Your task to perform on an android device: turn off location Image 0: 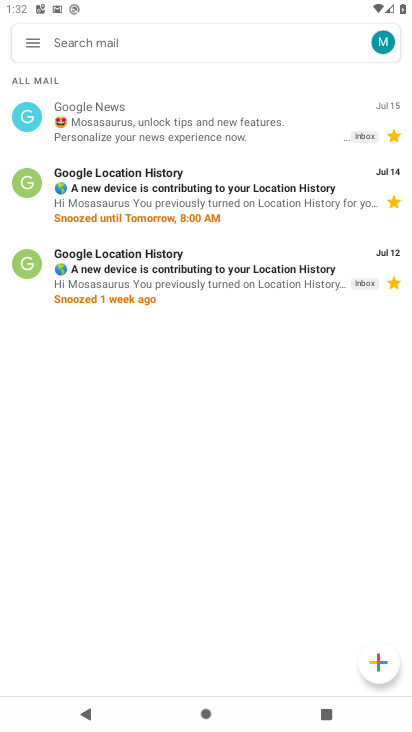
Step 0: drag from (230, 600) to (254, 56)
Your task to perform on an android device: turn off location Image 1: 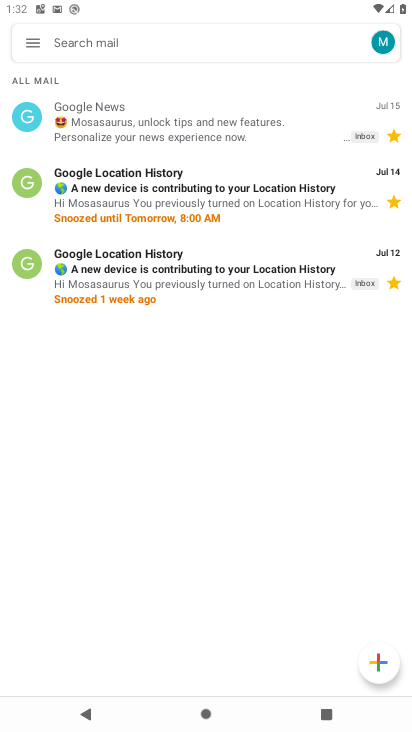
Step 1: press home button
Your task to perform on an android device: turn off location Image 2: 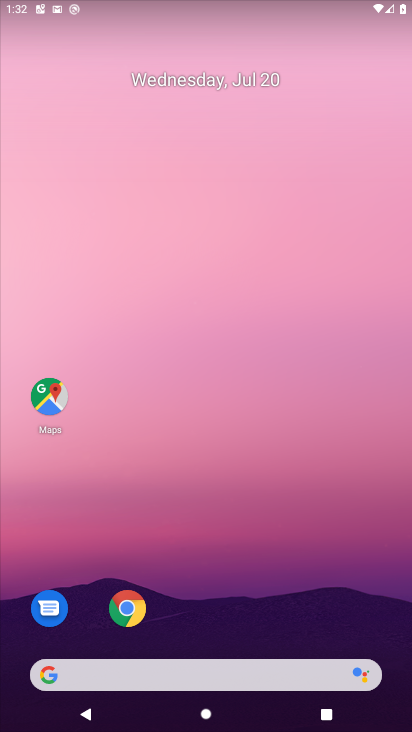
Step 2: drag from (252, 658) to (252, 122)
Your task to perform on an android device: turn off location Image 3: 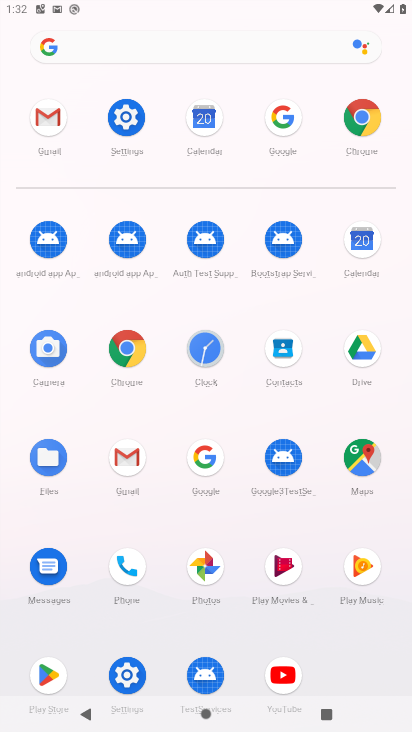
Step 3: click (131, 114)
Your task to perform on an android device: turn off location Image 4: 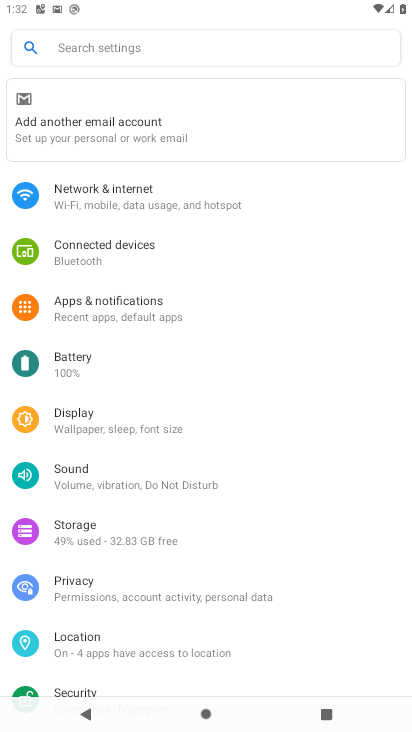
Step 4: click (94, 639)
Your task to perform on an android device: turn off location Image 5: 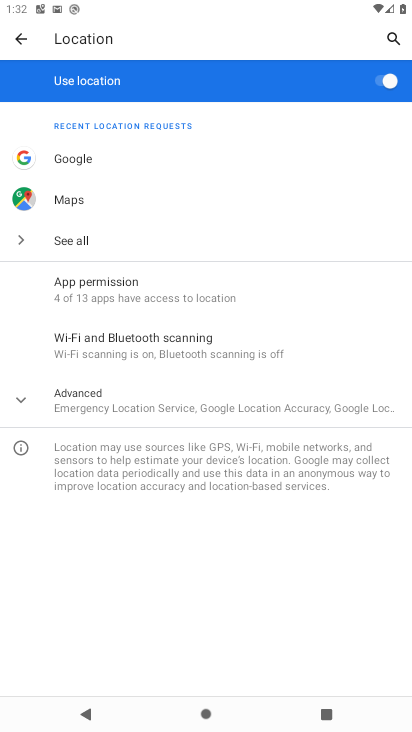
Step 5: click (374, 81)
Your task to perform on an android device: turn off location Image 6: 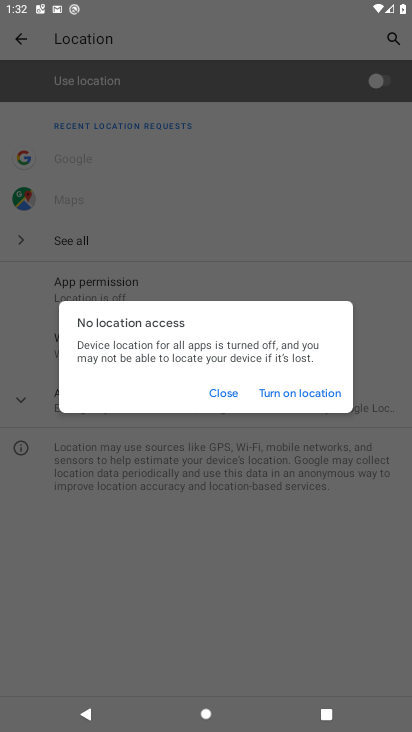
Step 6: click (237, 387)
Your task to perform on an android device: turn off location Image 7: 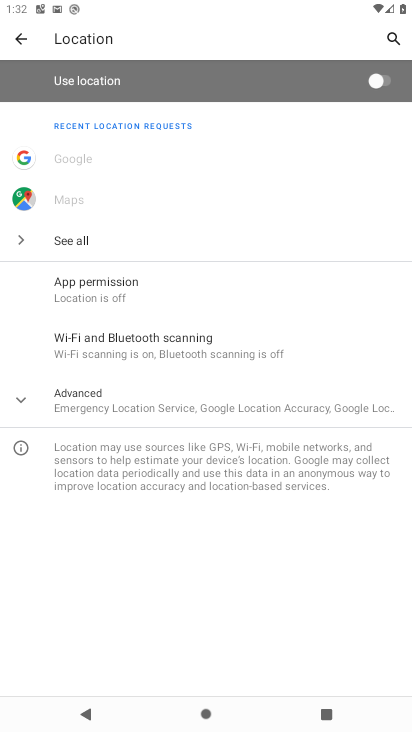
Step 7: task complete